Your task to perform on an android device: star an email in the gmail app Image 0: 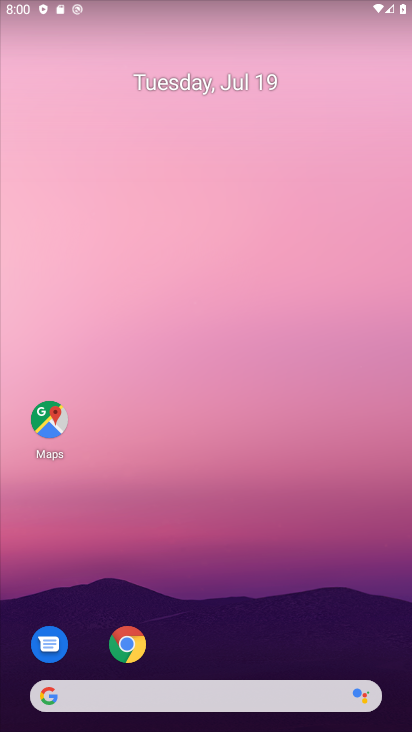
Step 0: drag from (213, 654) to (266, 160)
Your task to perform on an android device: star an email in the gmail app Image 1: 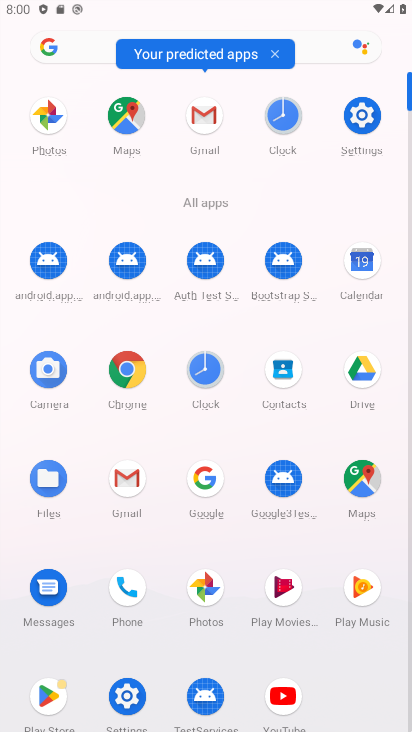
Step 1: click (131, 477)
Your task to perform on an android device: star an email in the gmail app Image 2: 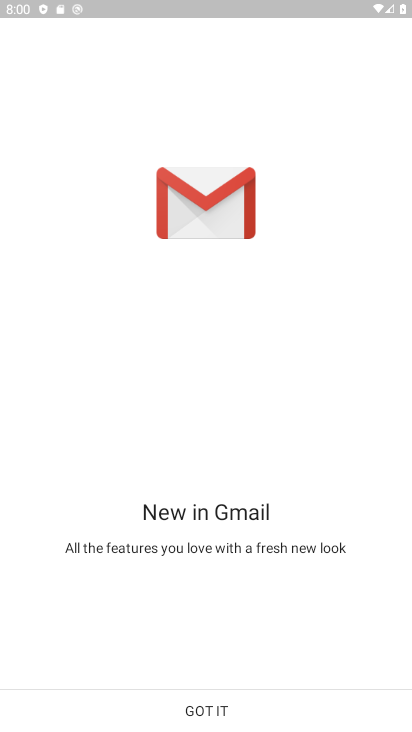
Step 2: click (205, 711)
Your task to perform on an android device: star an email in the gmail app Image 3: 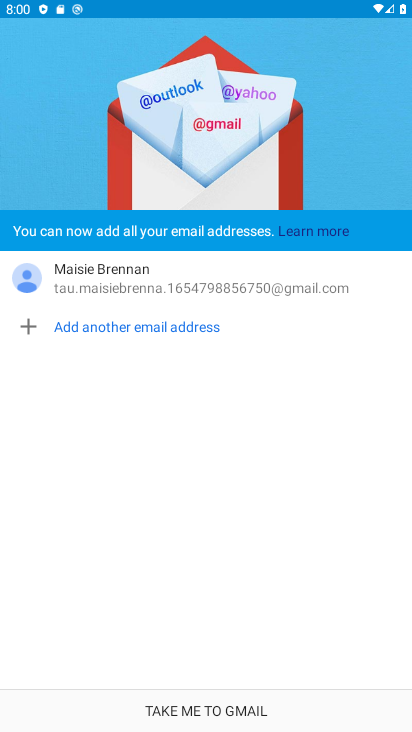
Step 3: click (245, 712)
Your task to perform on an android device: star an email in the gmail app Image 4: 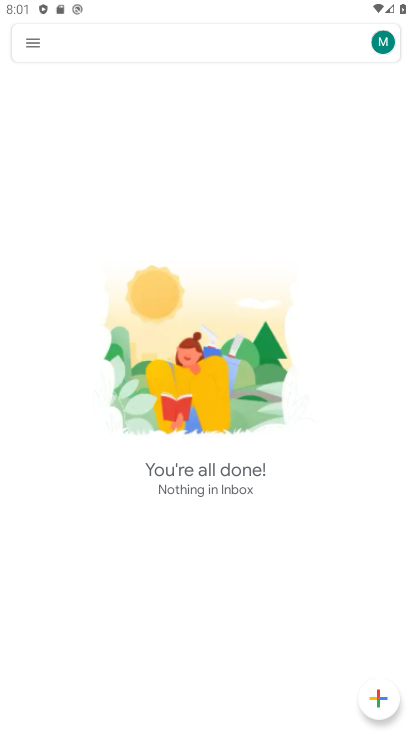
Step 4: click (31, 39)
Your task to perform on an android device: star an email in the gmail app Image 5: 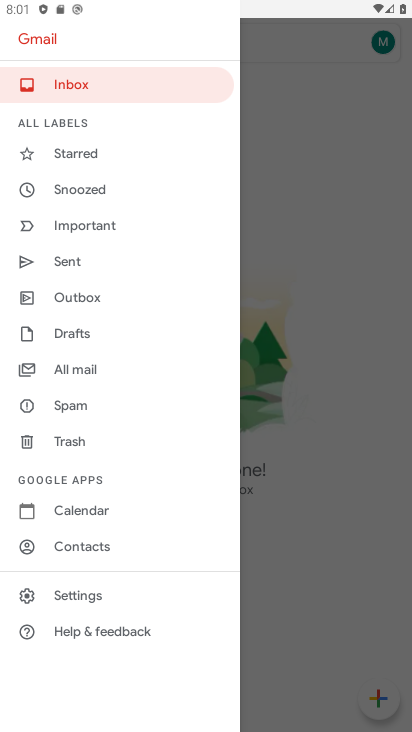
Step 5: click (106, 375)
Your task to perform on an android device: star an email in the gmail app Image 6: 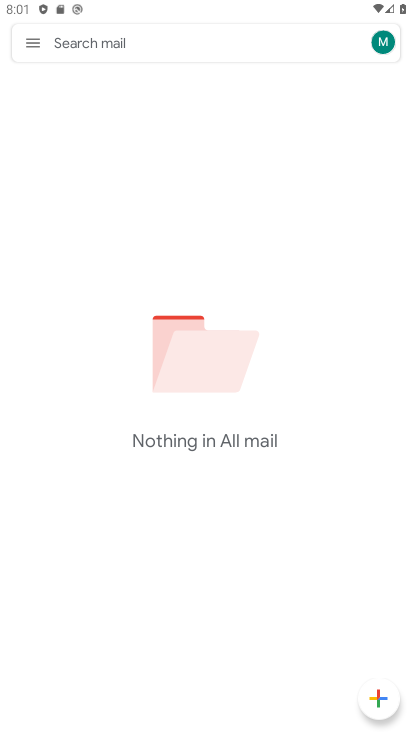
Step 6: task complete